Your task to perform on an android device: Go to Yahoo.com Image 0: 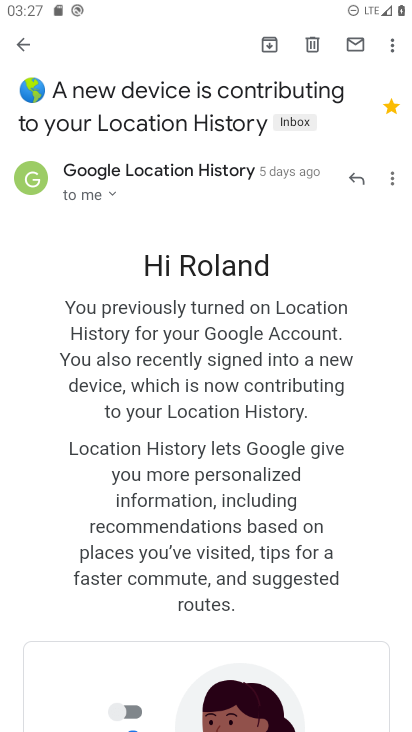
Step 0: press home button
Your task to perform on an android device: Go to Yahoo.com Image 1: 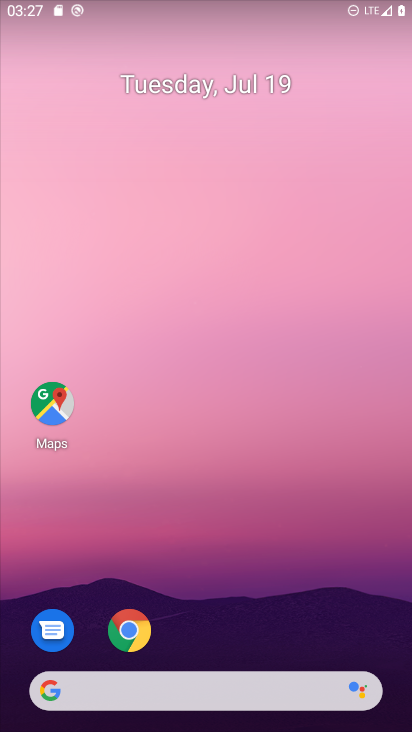
Step 1: click (128, 629)
Your task to perform on an android device: Go to Yahoo.com Image 2: 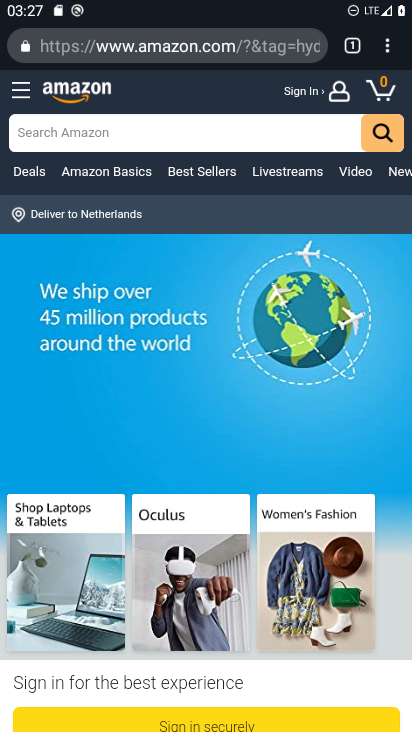
Step 2: click (260, 39)
Your task to perform on an android device: Go to Yahoo.com Image 3: 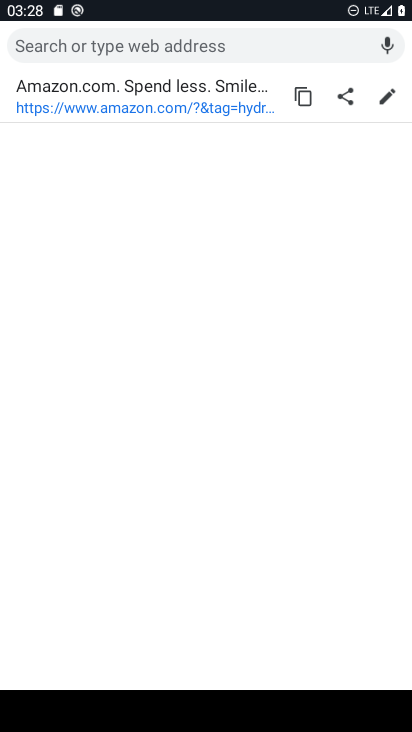
Step 3: type "yahoo.com"
Your task to perform on an android device: Go to Yahoo.com Image 4: 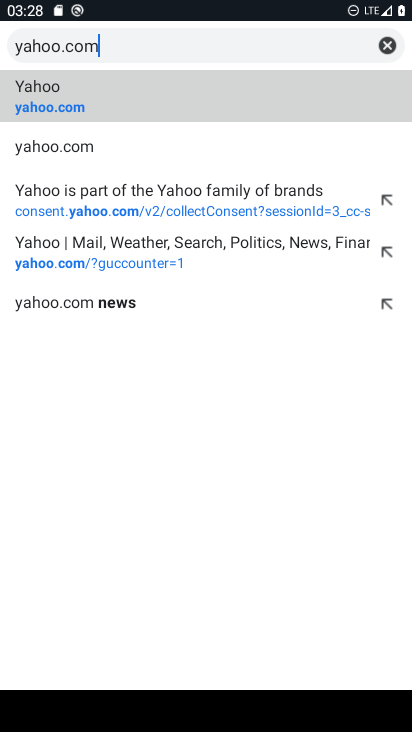
Step 4: click (69, 94)
Your task to perform on an android device: Go to Yahoo.com Image 5: 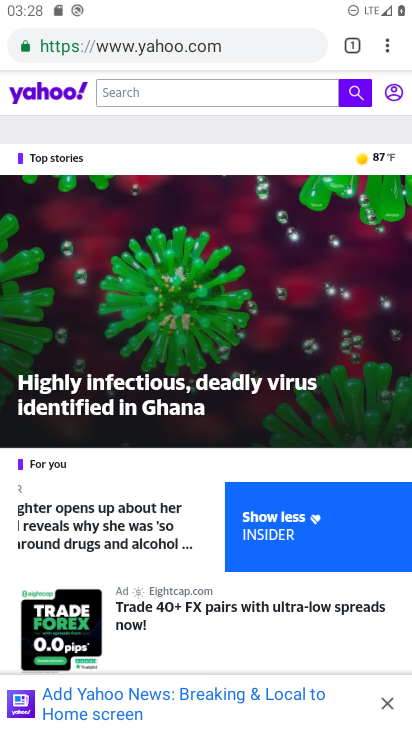
Step 5: task complete